Your task to perform on an android device: Open Youtube and go to "Your channel" Image 0: 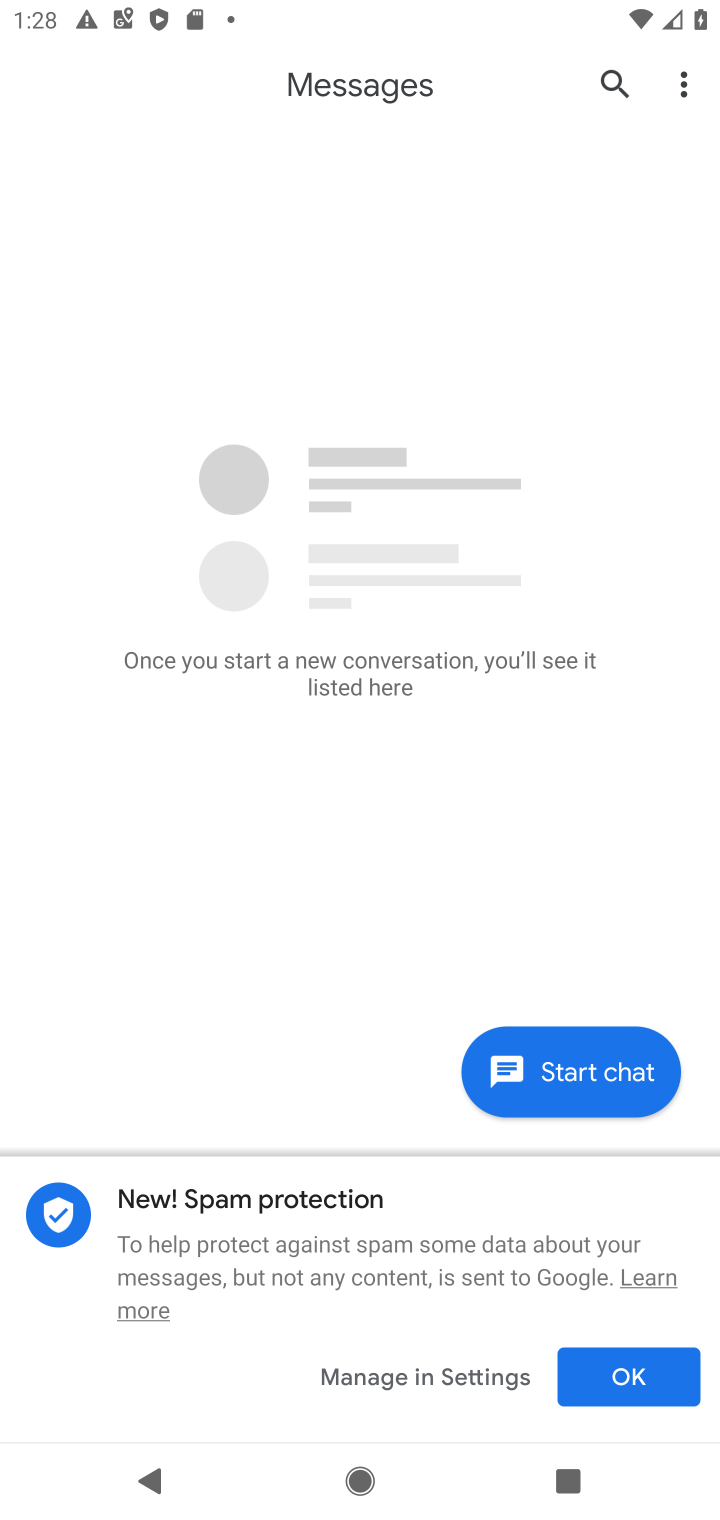
Step 0: press home button
Your task to perform on an android device: Open Youtube and go to "Your channel" Image 1: 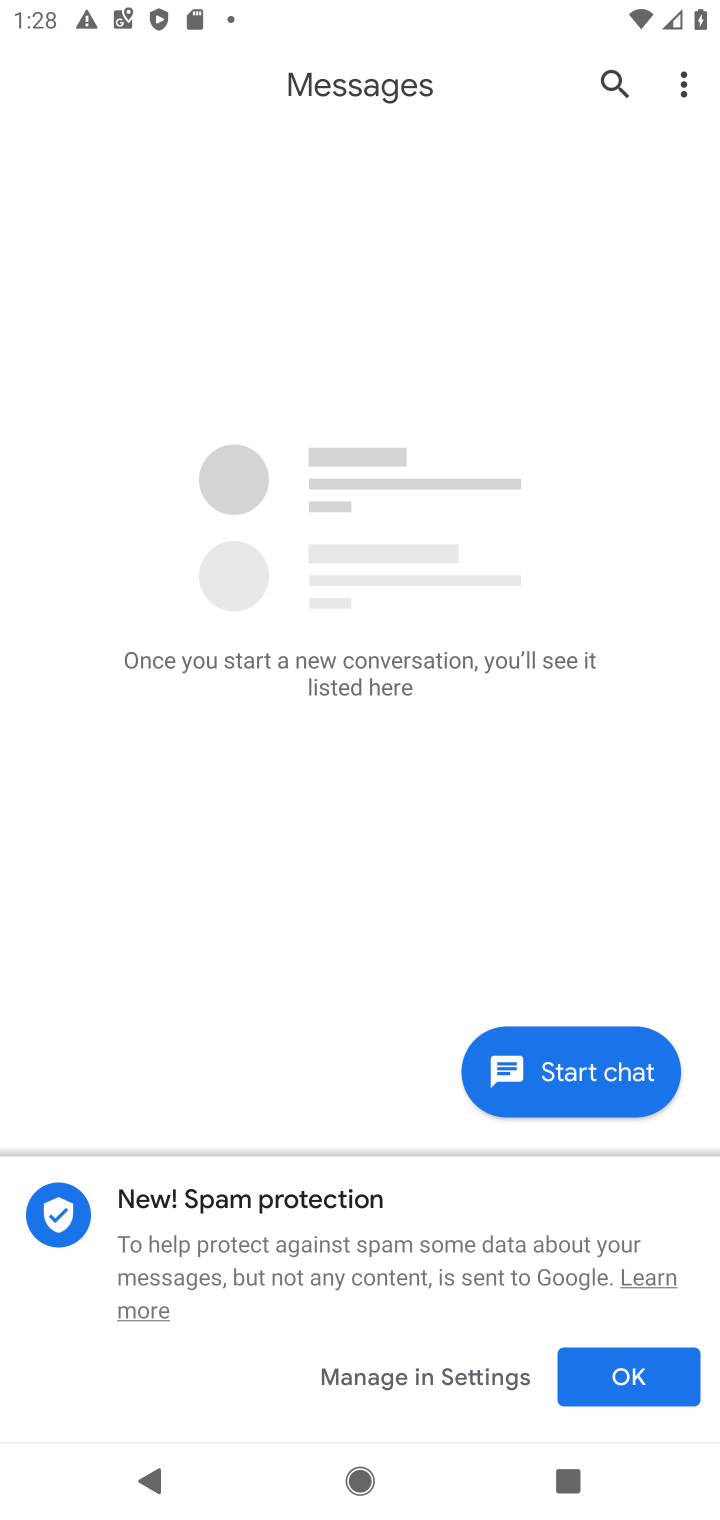
Step 1: press home button
Your task to perform on an android device: Open Youtube and go to "Your channel" Image 2: 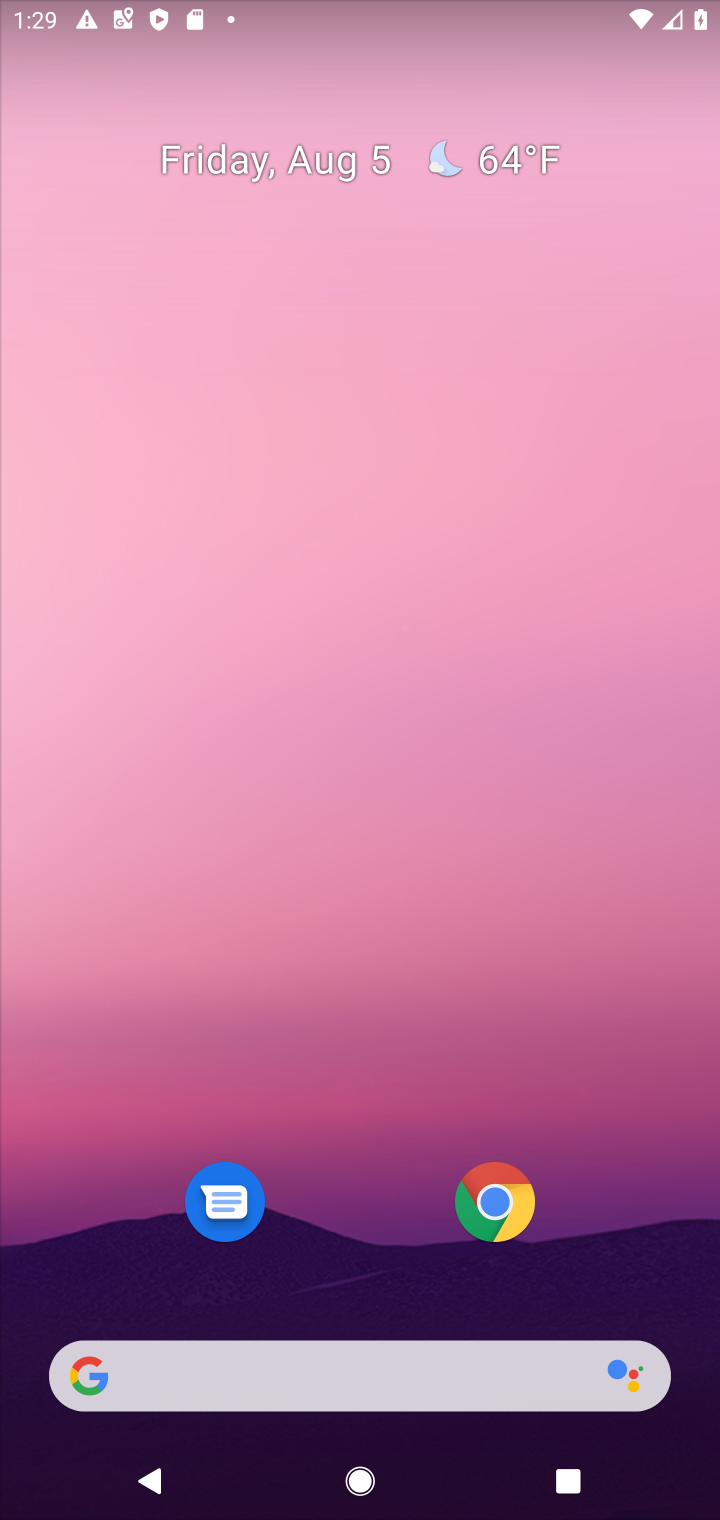
Step 2: drag from (561, 1208) to (507, 159)
Your task to perform on an android device: Open Youtube and go to "Your channel" Image 3: 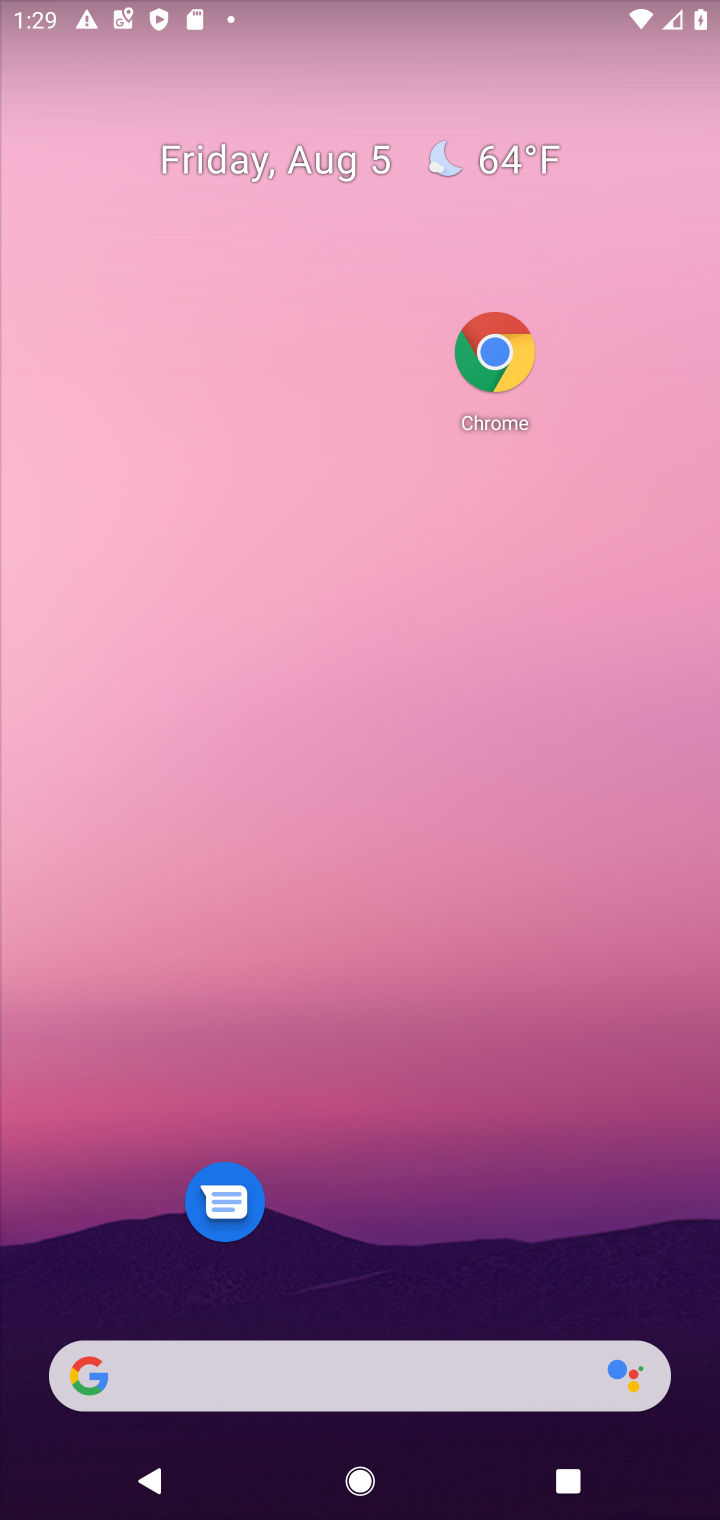
Step 3: drag from (414, 1146) to (193, 4)
Your task to perform on an android device: Open Youtube and go to "Your channel" Image 4: 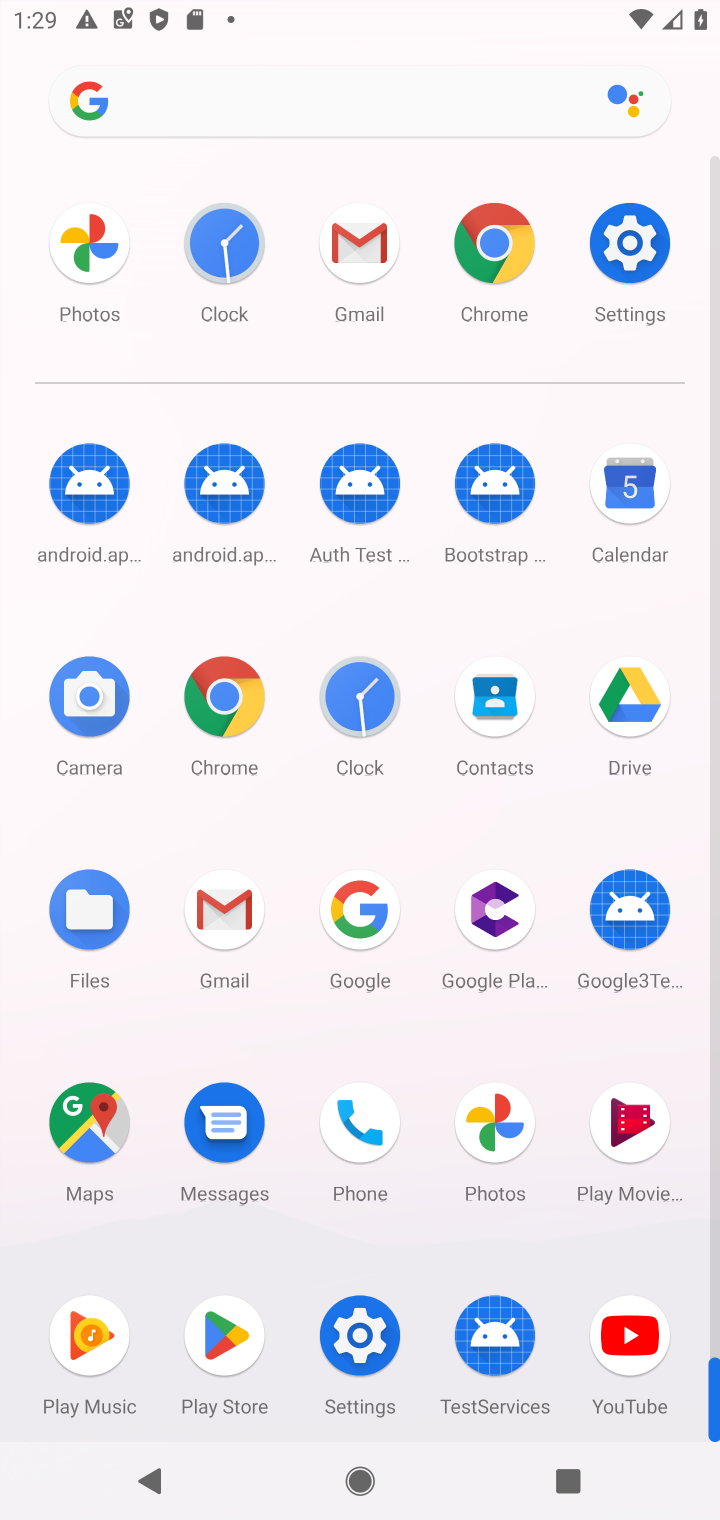
Step 4: click (627, 1342)
Your task to perform on an android device: Open Youtube and go to "Your channel" Image 5: 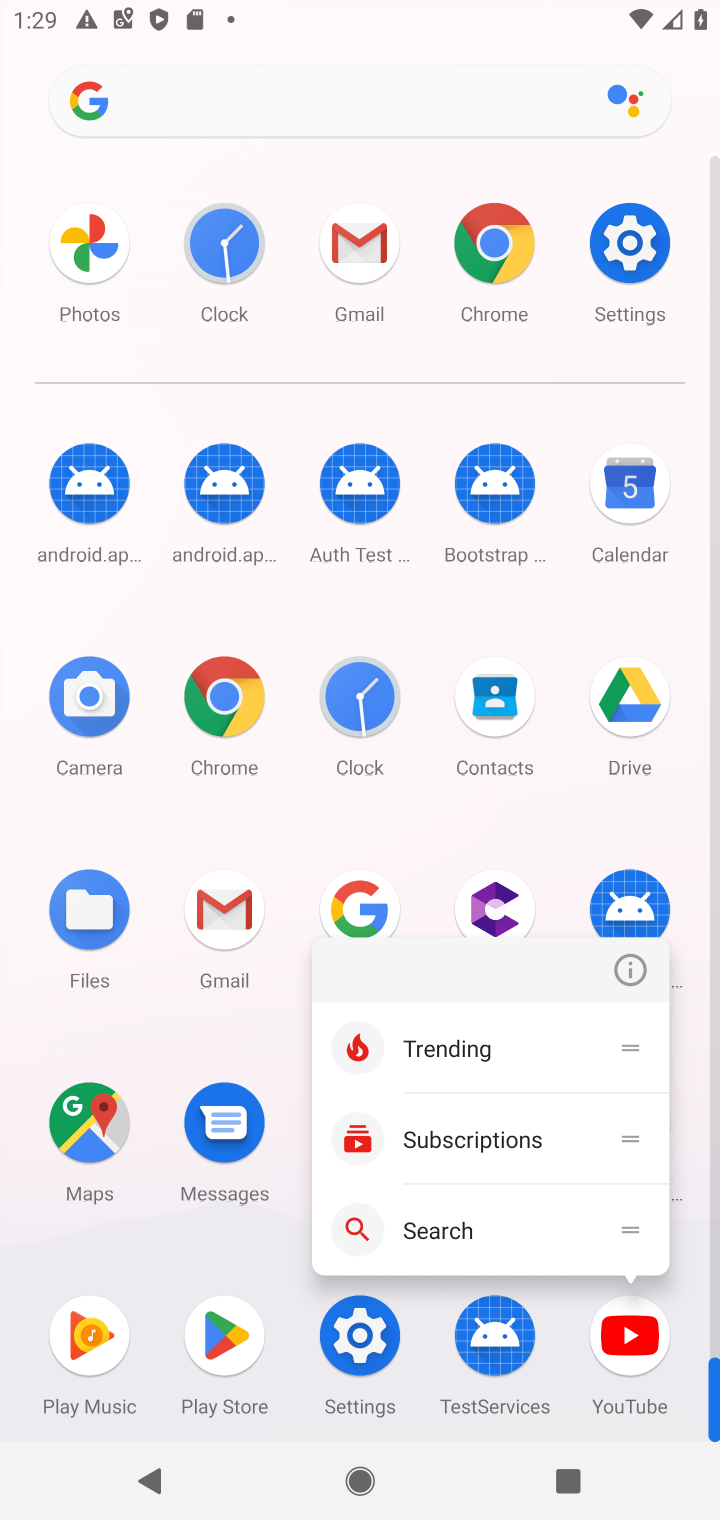
Step 5: click (628, 1324)
Your task to perform on an android device: Open Youtube and go to "Your channel" Image 6: 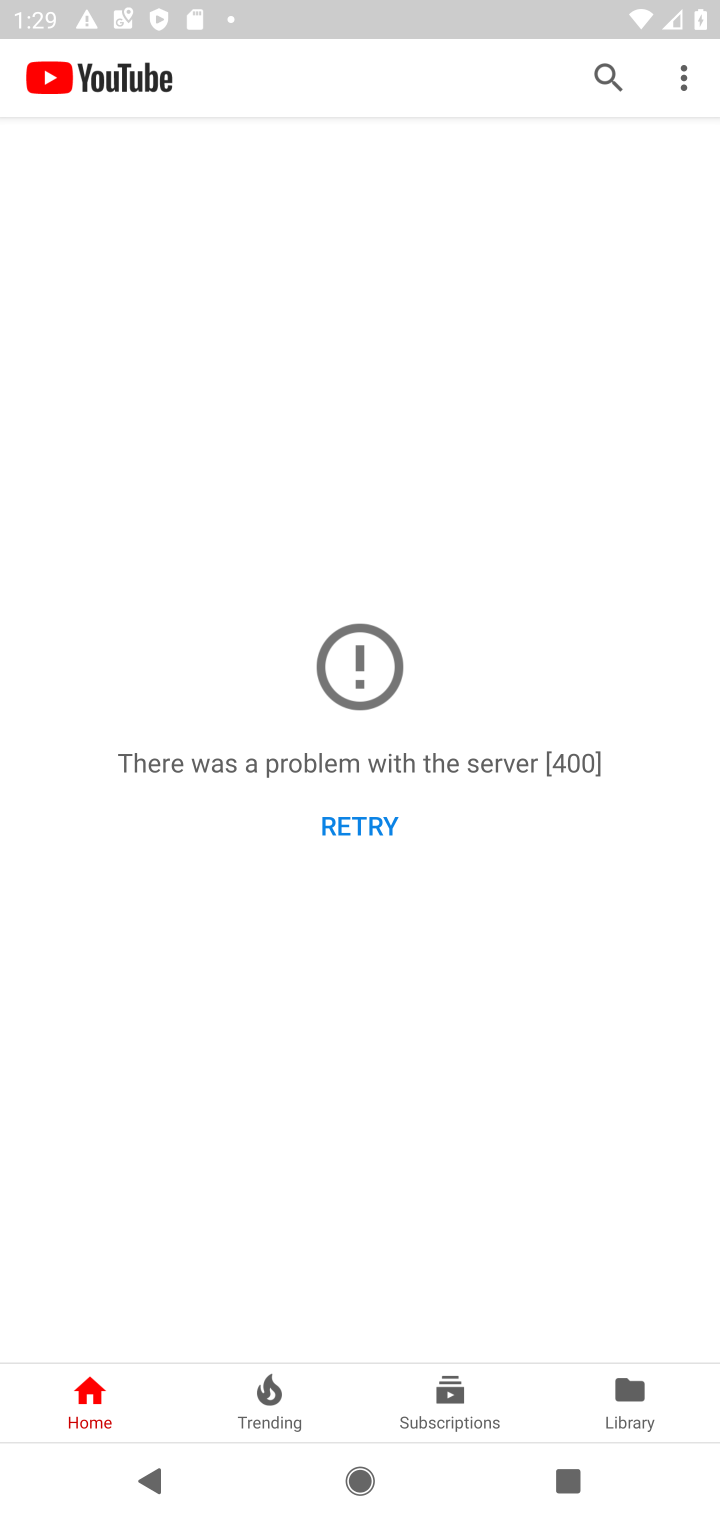
Step 6: click (614, 1439)
Your task to perform on an android device: Open Youtube and go to "Your channel" Image 7: 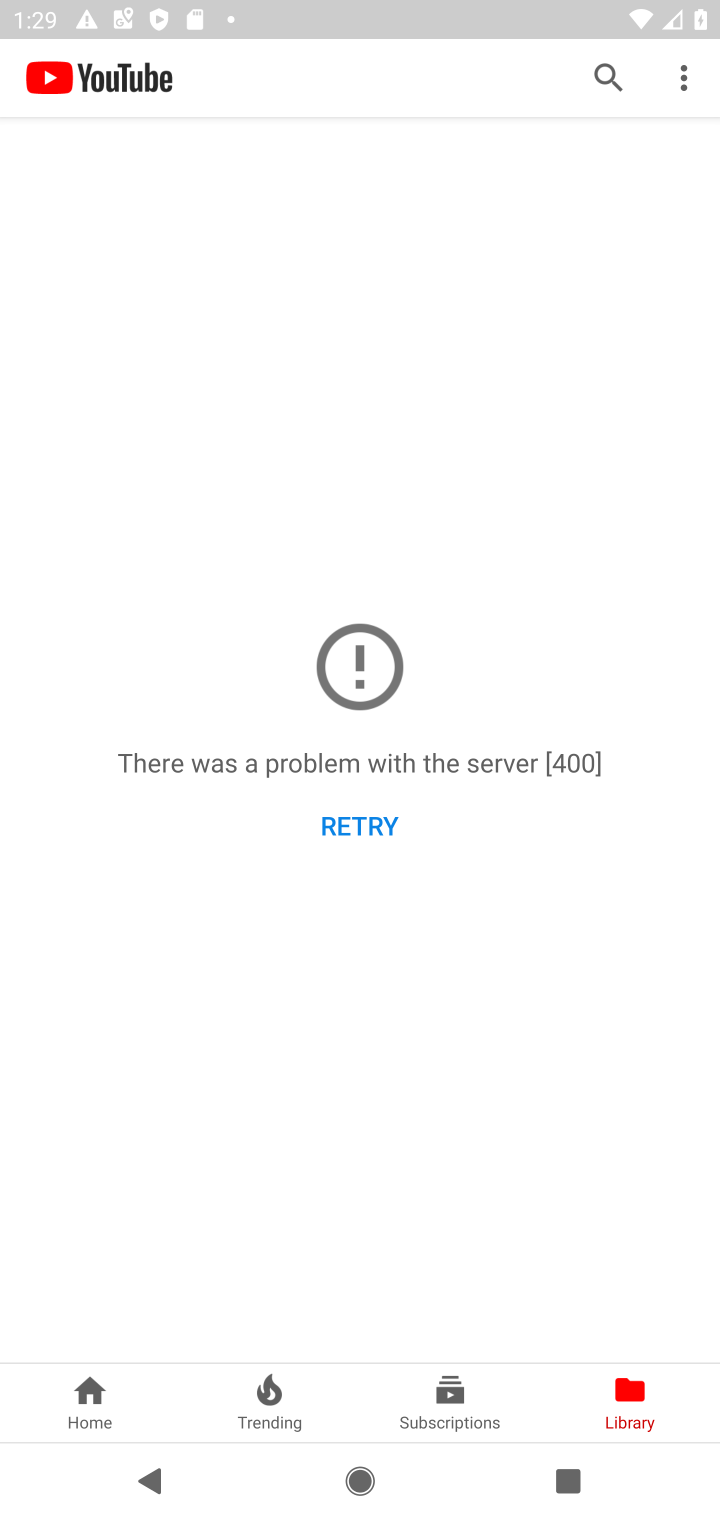
Step 7: task complete